Your task to perform on an android device: Show me recent news Image 0: 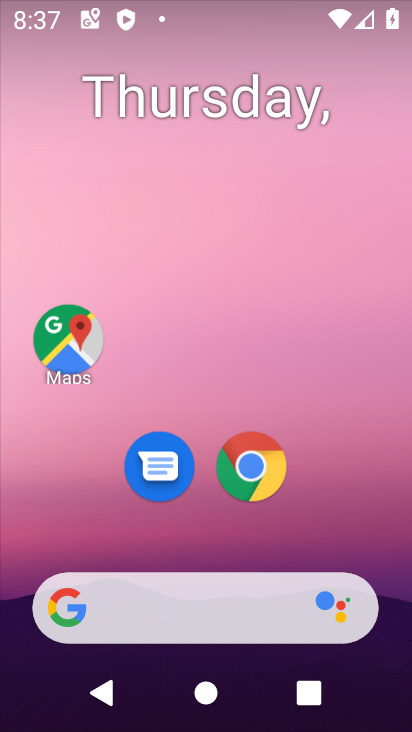
Step 0: click (257, 612)
Your task to perform on an android device: Show me recent news Image 1: 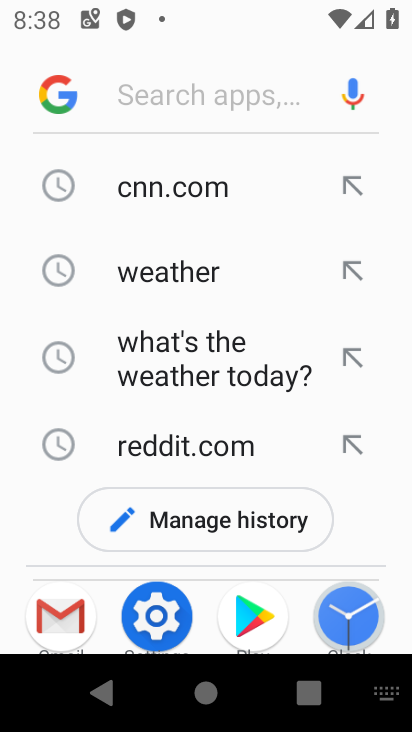
Step 1: type " recent news"
Your task to perform on an android device: Show me recent news Image 2: 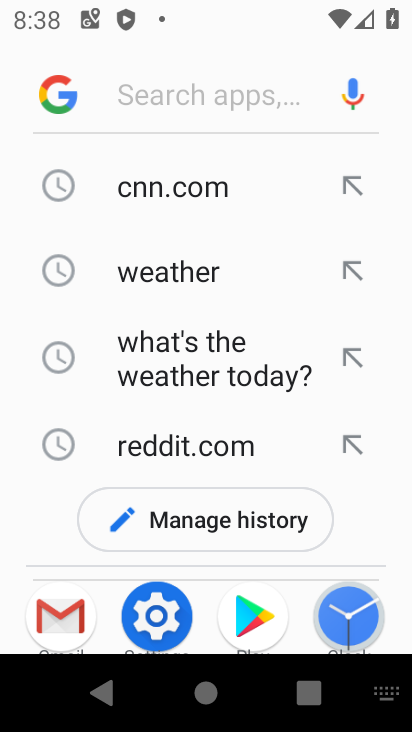
Step 2: click (234, 91)
Your task to perform on an android device: Show me recent news Image 3: 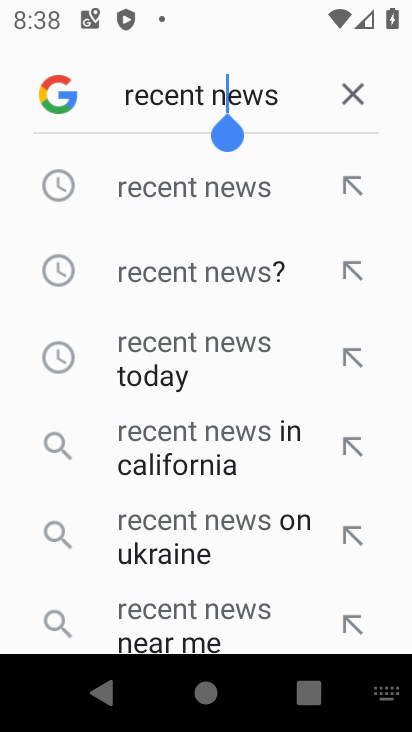
Step 3: click (148, 181)
Your task to perform on an android device: Show me recent news Image 4: 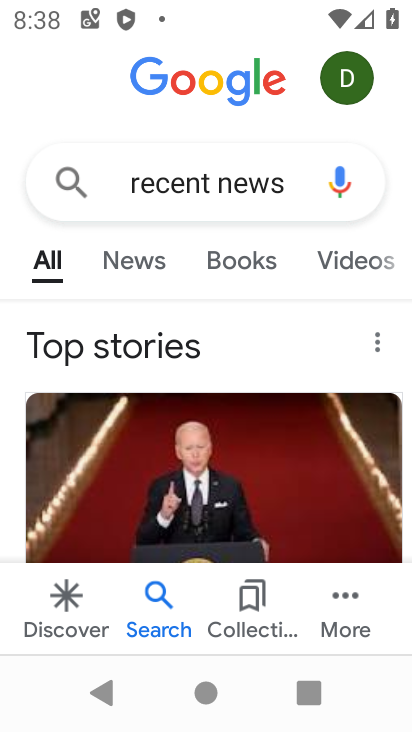
Step 4: task complete